Your task to perform on an android device: turn off picture-in-picture Image 0: 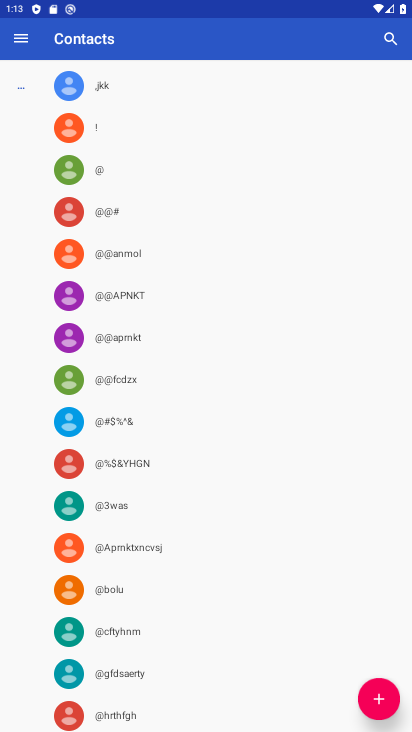
Step 0: press back button
Your task to perform on an android device: turn off picture-in-picture Image 1: 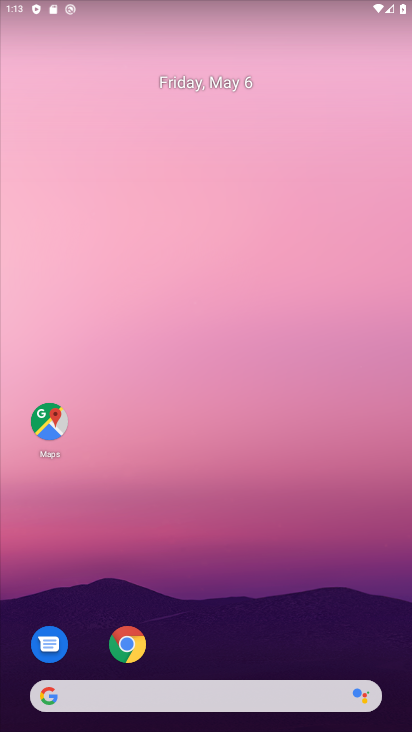
Step 1: drag from (231, 473) to (298, 47)
Your task to perform on an android device: turn off picture-in-picture Image 2: 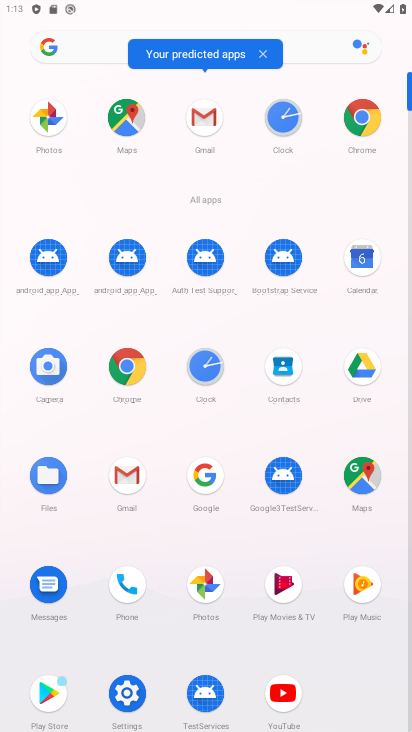
Step 2: click (139, 700)
Your task to perform on an android device: turn off picture-in-picture Image 3: 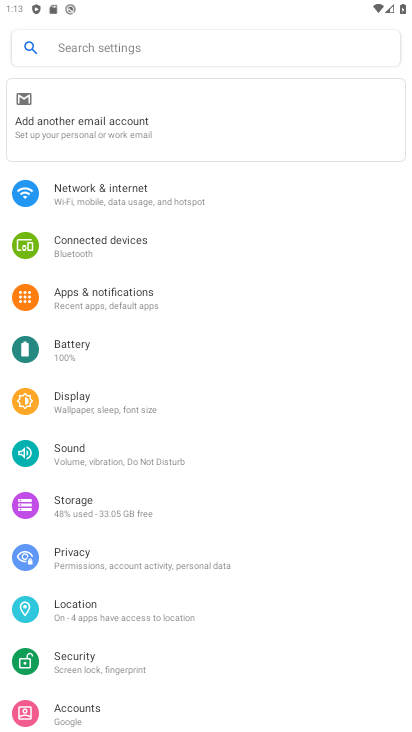
Step 3: click (98, 291)
Your task to perform on an android device: turn off picture-in-picture Image 4: 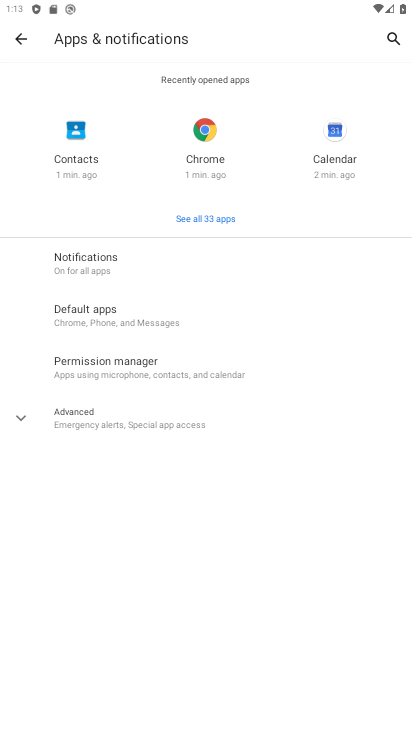
Step 4: click (87, 420)
Your task to perform on an android device: turn off picture-in-picture Image 5: 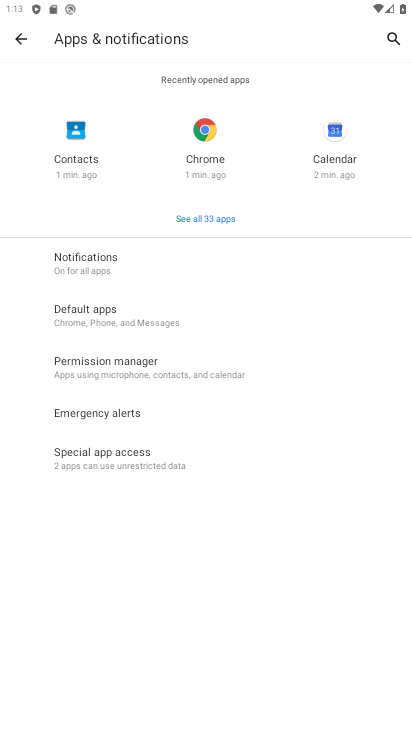
Step 5: click (101, 469)
Your task to perform on an android device: turn off picture-in-picture Image 6: 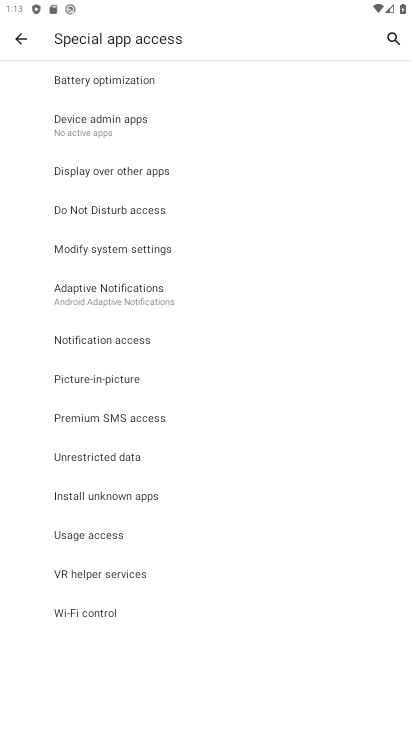
Step 6: click (94, 372)
Your task to perform on an android device: turn off picture-in-picture Image 7: 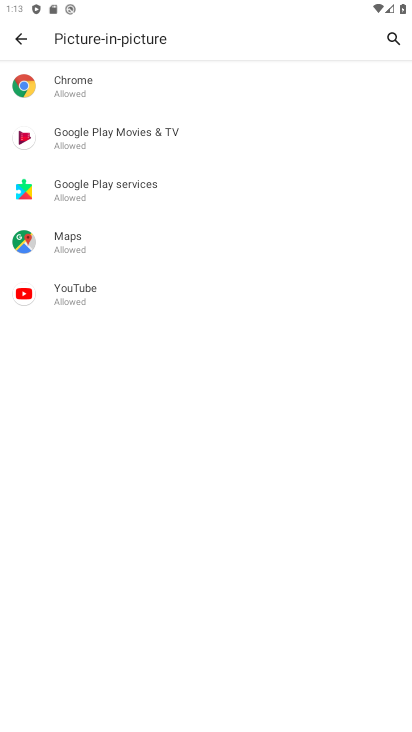
Step 7: click (93, 84)
Your task to perform on an android device: turn off picture-in-picture Image 8: 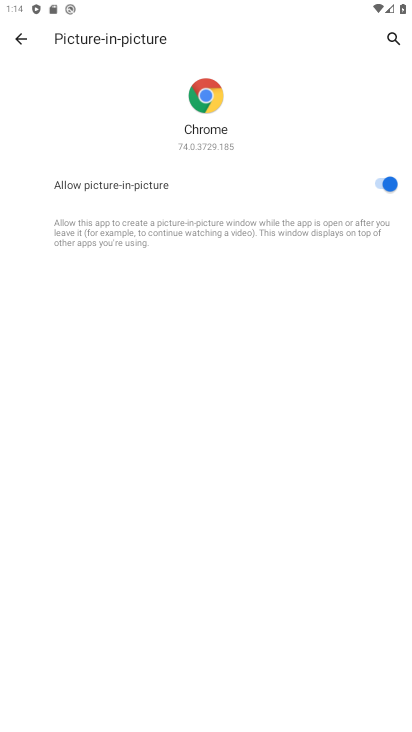
Step 8: click (389, 180)
Your task to perform on an android device: turn off picture-in-picture Image 9: 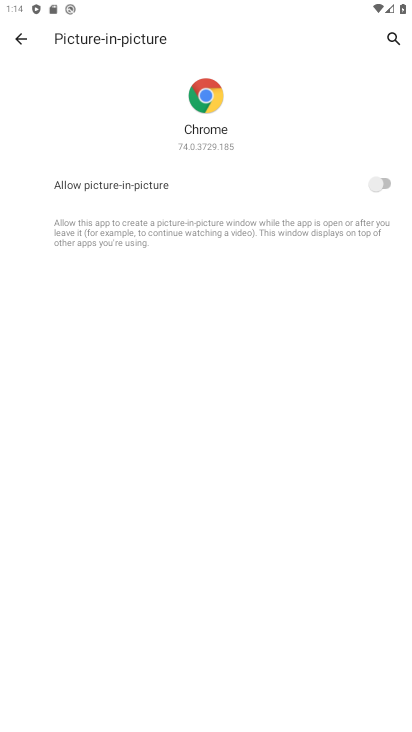
Step 9: task complete